Your task to perform on an android device: turn off location Image 0: 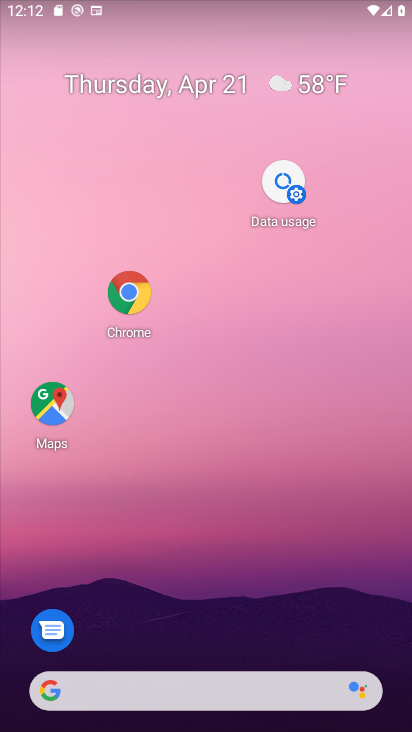
Step 0: drag from (150, 516) to (150, 255)
Your task to perform on an android device: turn off location Image 1: 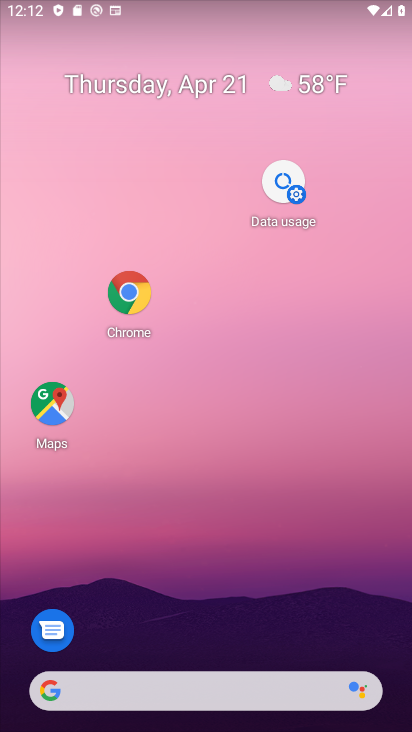
Step 1: drag from (228, 665) to (212, 173)
Your task to perform on an android device: turn off location Image 2: 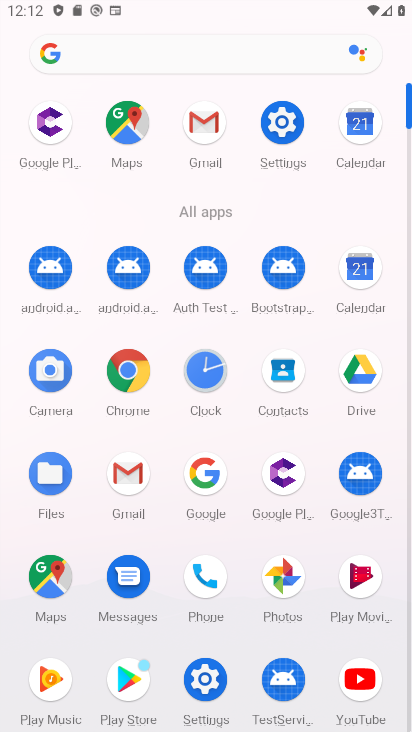
Step 2: click (279, 130)
Your task to perform on an android device: turn off location Image 3: 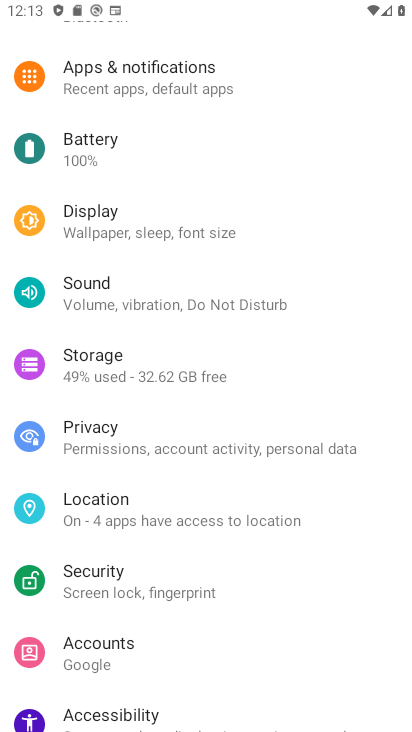
Step 3: click (121, 505)
Your task to perform on an android device: turn off location Image 4: 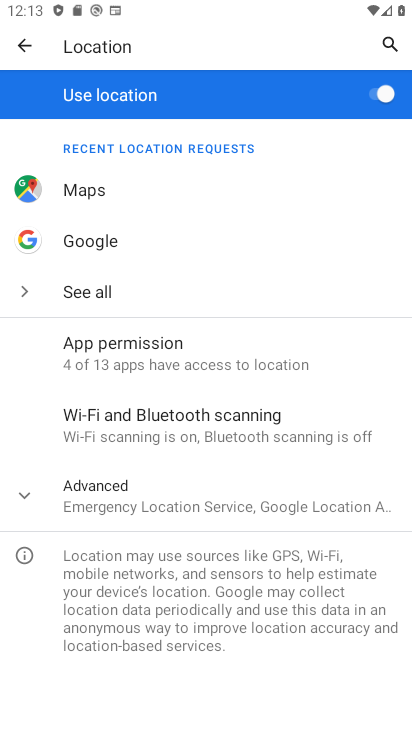
Step 4: click (371, 97)
Your task to perform on an android device: turn off location Image 5: 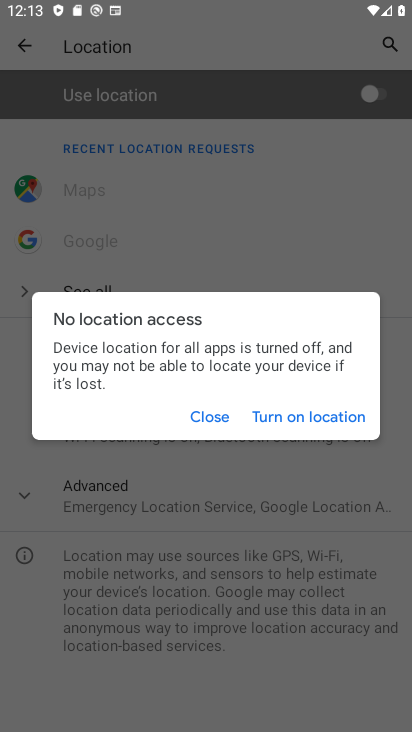
Step 5: click (214, 418)
Your task to perform on an android device: turn off location Image 6: 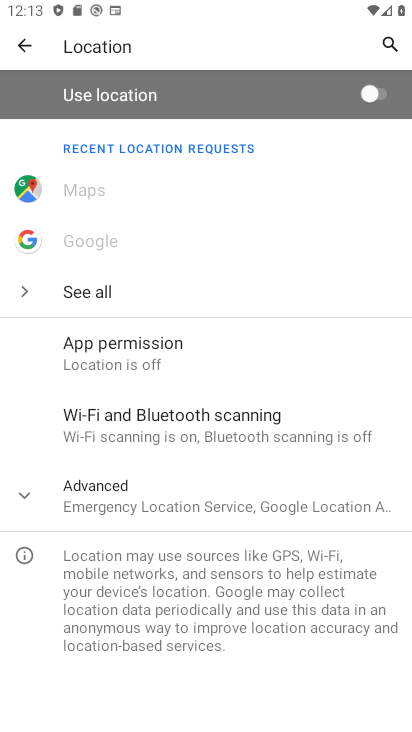
Step 6: task complete